Your task to perform on an android device: What's the weather going to be tomorrow? Image 0: 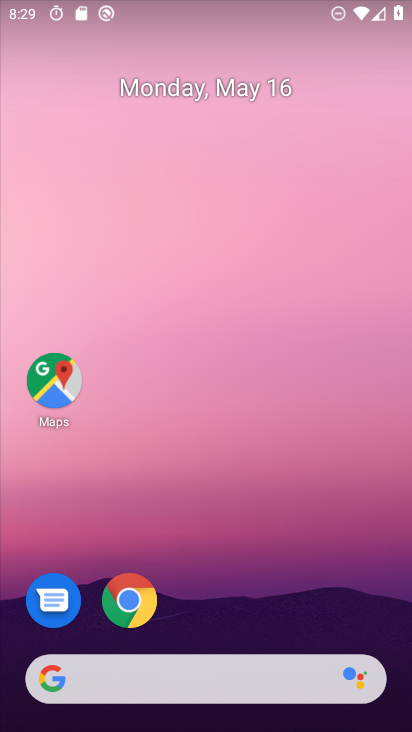
Step 0: click (52, 683)
Your task to perform on an android device: What's the weather going to be tomorrow? Image 1: 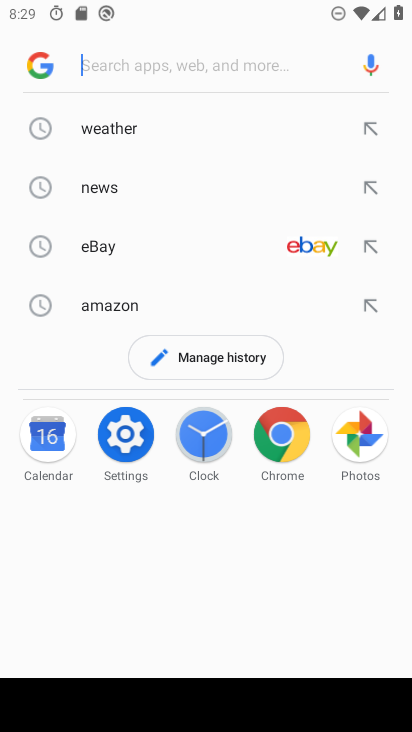
Step 1: click (107, 122)
Your task to perform on an android device: What's the weather going to be tomorrow? Image 2: 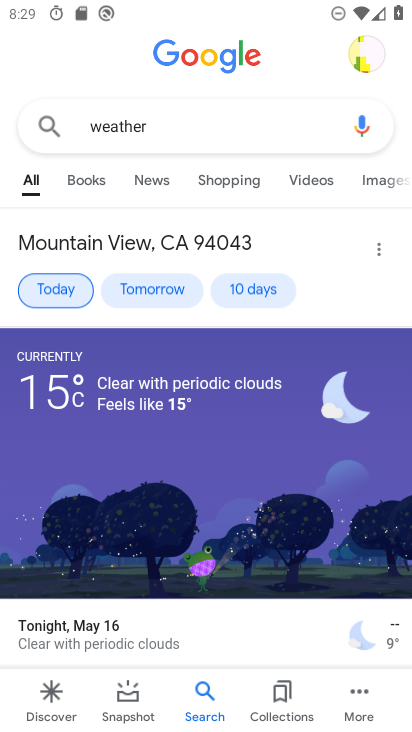
Step 2: click (149, 291)
Your task to perform on an android device: What's the weather going to be tomorrow? Image 3: 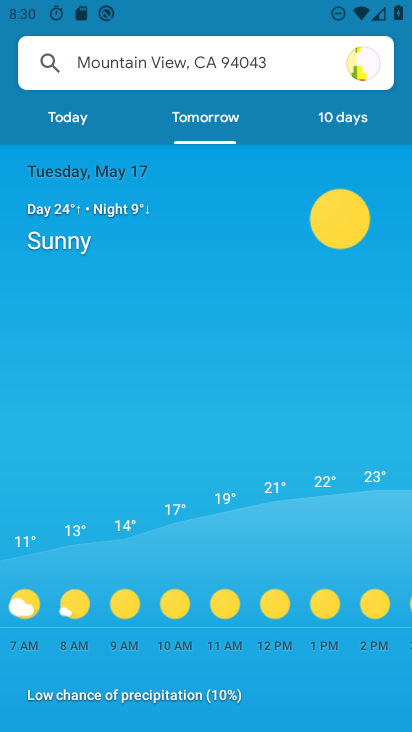
Step 3: task complete